Your task to perform on an android device: open app "Facebook Lite" (install if not already installed) and enter user name: "suppers@inbox.com" and password: "downplayed" Image 0: 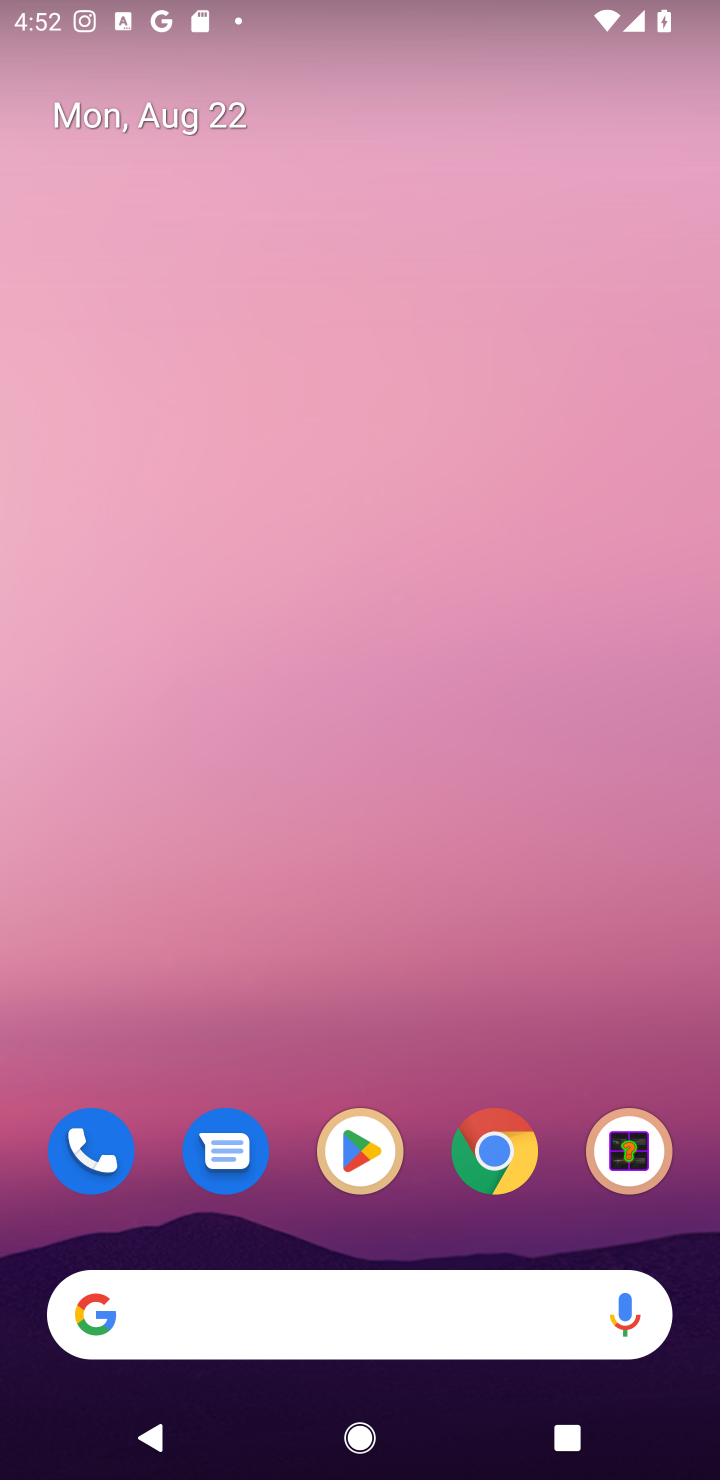
Step 0: click (357, 1153)
Your task to perform on an android device: open app "Facebook Lite" (install if not already installed) and enter user name: "suppers@inbox.com" and password: "downplayed" Image 1: 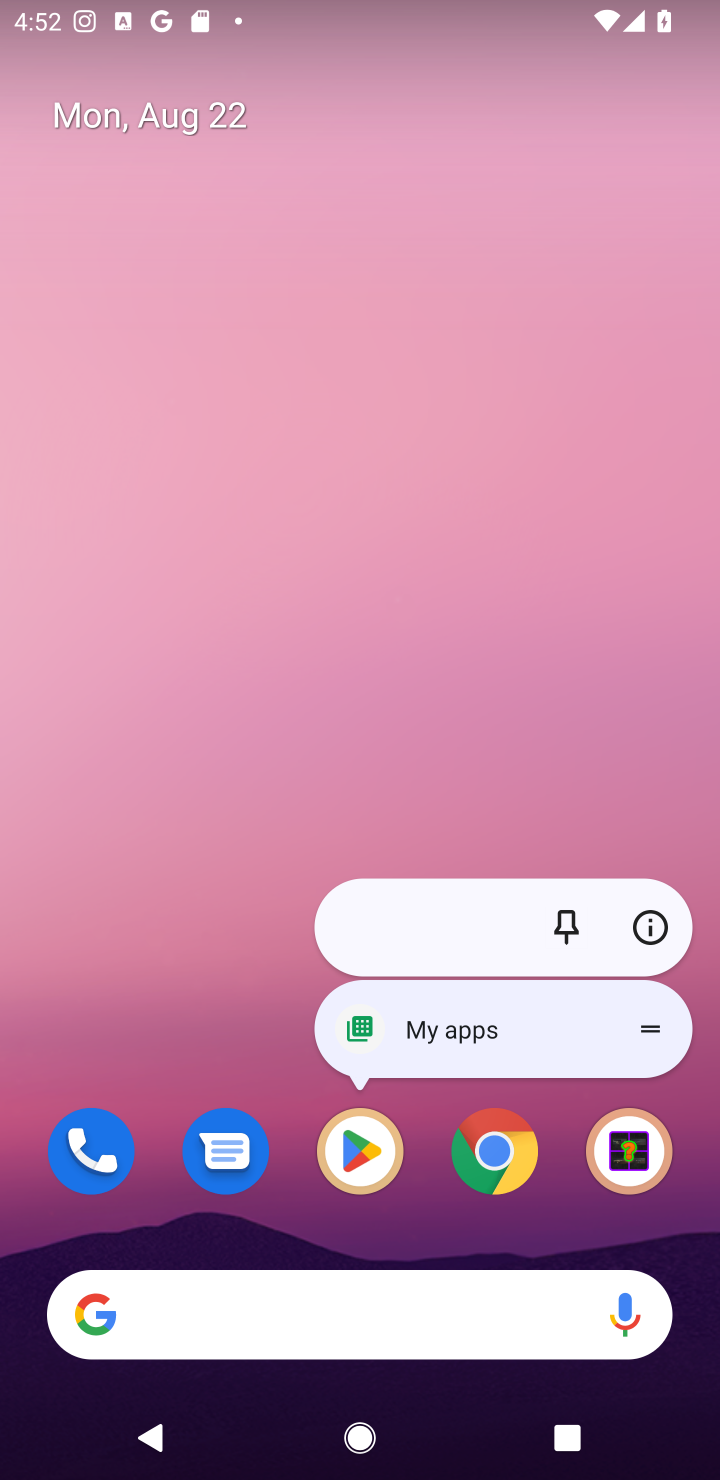
Step 1: click (365, 1142)
Your task to perform on an android device: open app "Facebook Lite" (install if not already installed) and enter user name: "suppers@inbox.com" and password: "downplayed" Image 2: 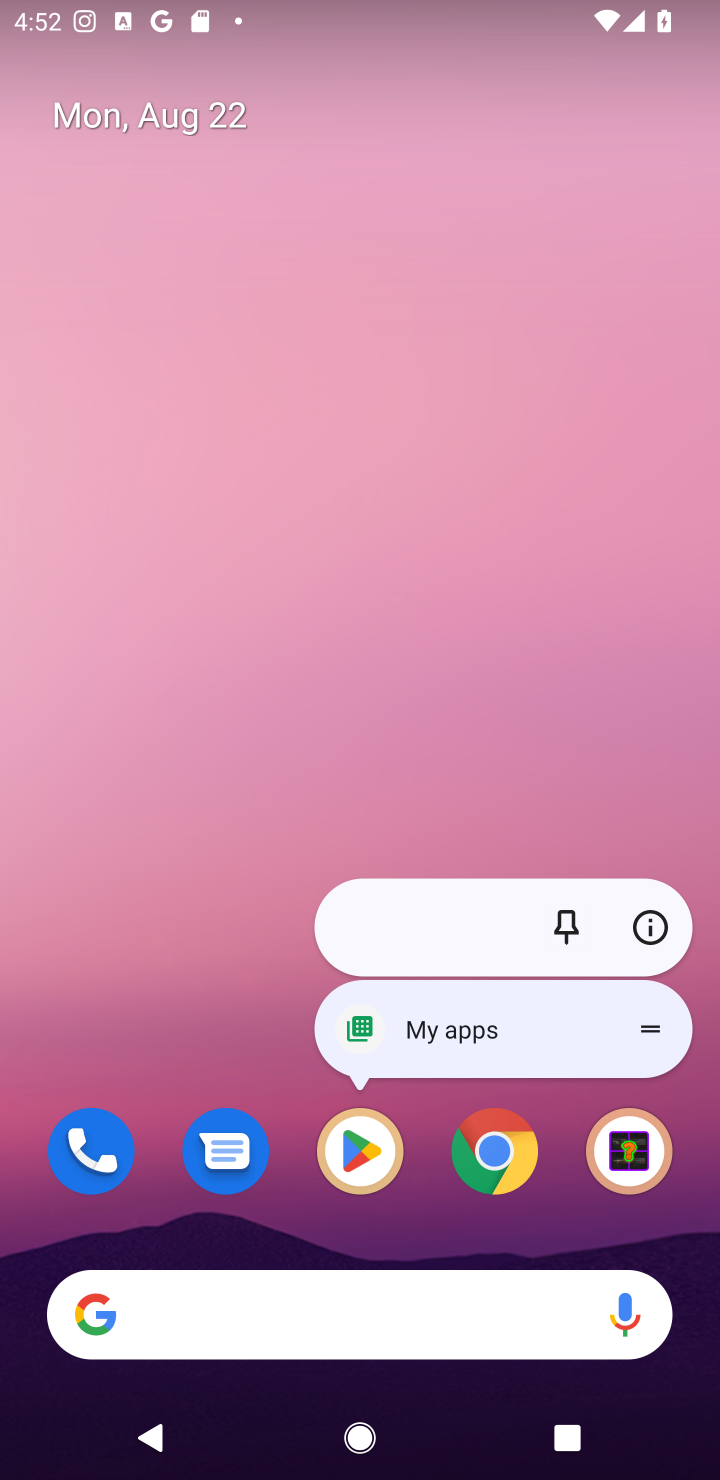
Step 2: click (365, 1144)
Your task to perform on an android device: open app "Facebook Lite" (install if not already installed) and enter user name: "suppers@inbox.com" and password: "downplayed" Image 3: 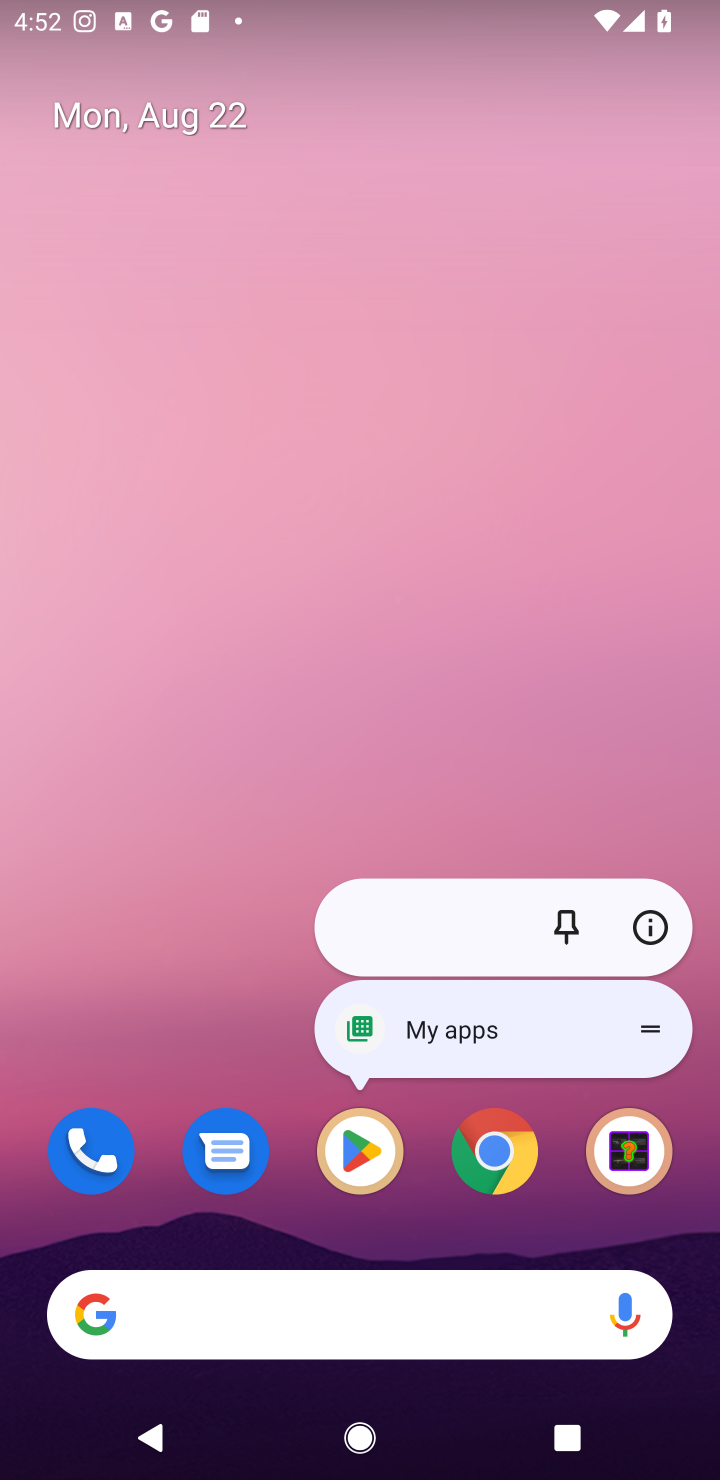
Step 3: click (345, 1163)
Your task to perform on an android device: open app "Facebook Lite" (install if not already installed) and enter user name: "suppers@inbox.com" and password: "downplayed" Image 4: 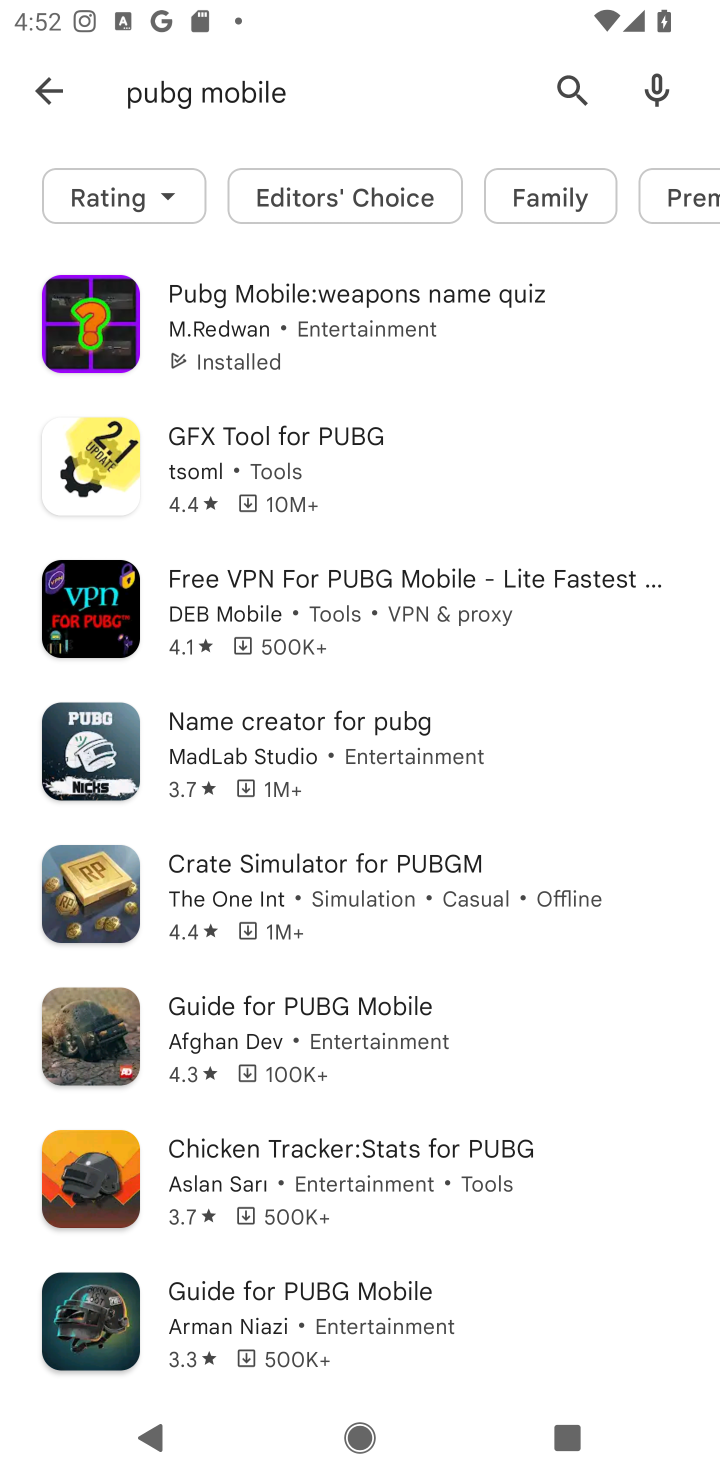
Step 4: click (564, 85)
Your task to perform on an android device: open app "Facebook Lite" (install if not already installed) and enter user name: "suppers@inbox.com" and password: "downplayed" Image 5: 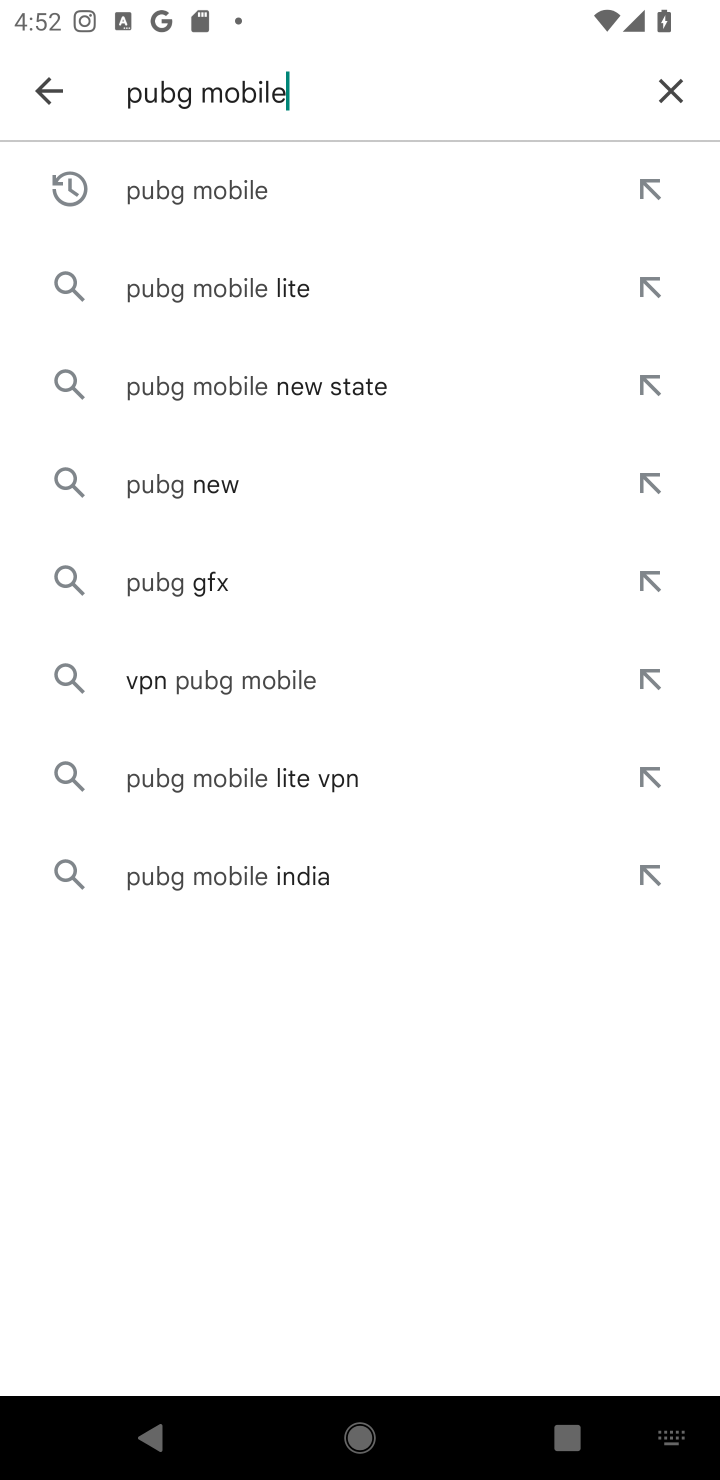
Step 5: click (662, 97)
Your task to perform on an android device: open app "Facebook Lite" (install if not already installed) and enter user name: "suppers@inbox.com" and password: "downplayed" Image 6: 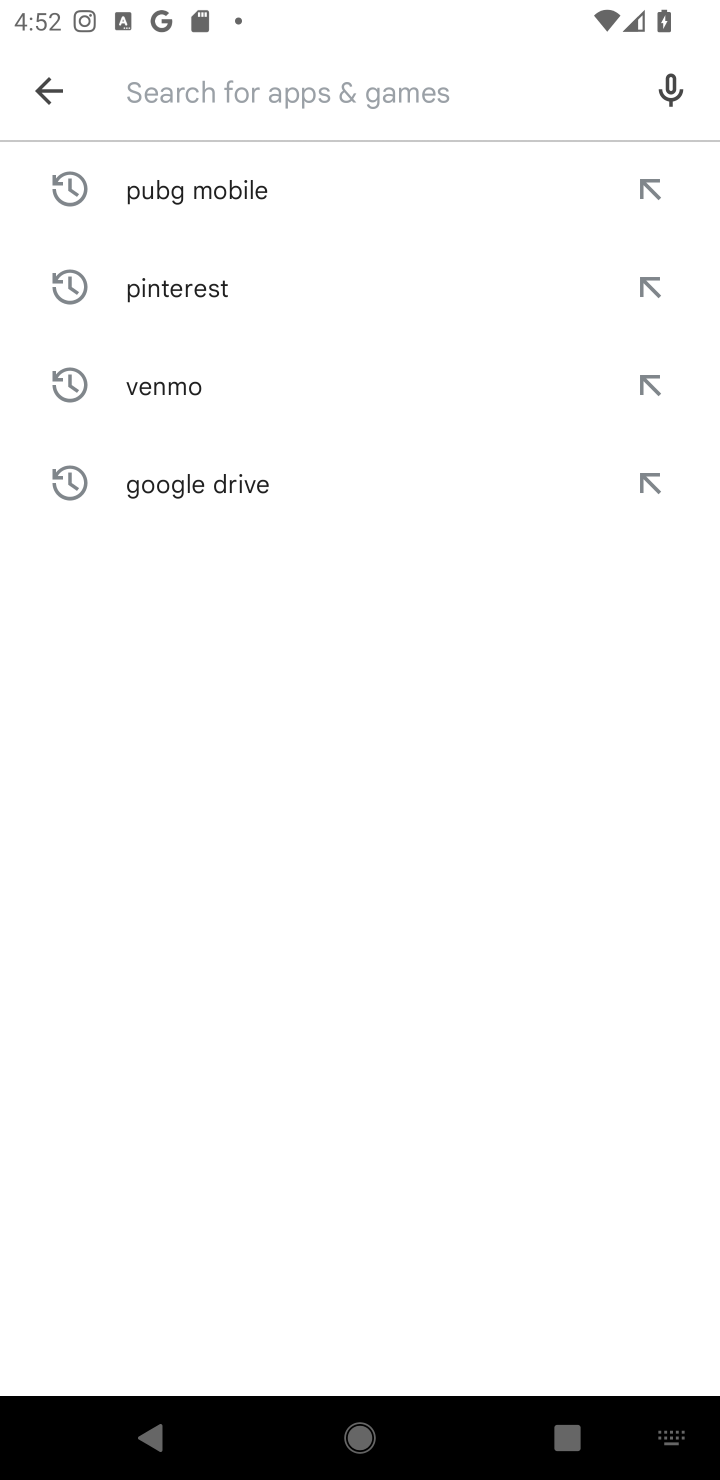
Step 6: type "Facebook Lite"
Your task to perform on an android device: open app "Facebook Lite" (install if not already installed) and enter user name: "suppers@inbox.com" and password: "downplayed" Image 7: 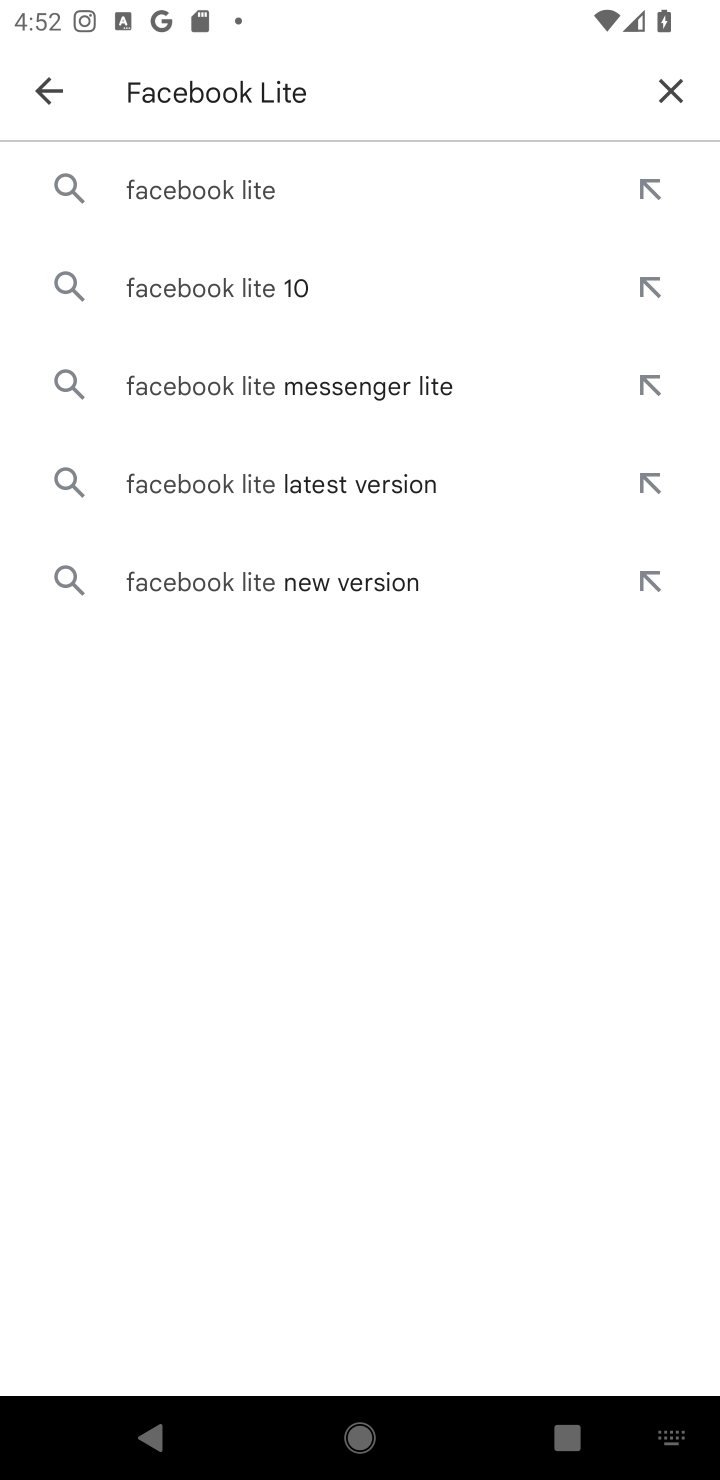
Step 7: click (246, 204)
Your task to perform on an android device: open app "Facebook Lite" (install if not already installed) and enter user name: "suppers@inbox.com" and password: "downplayed" Image 8: 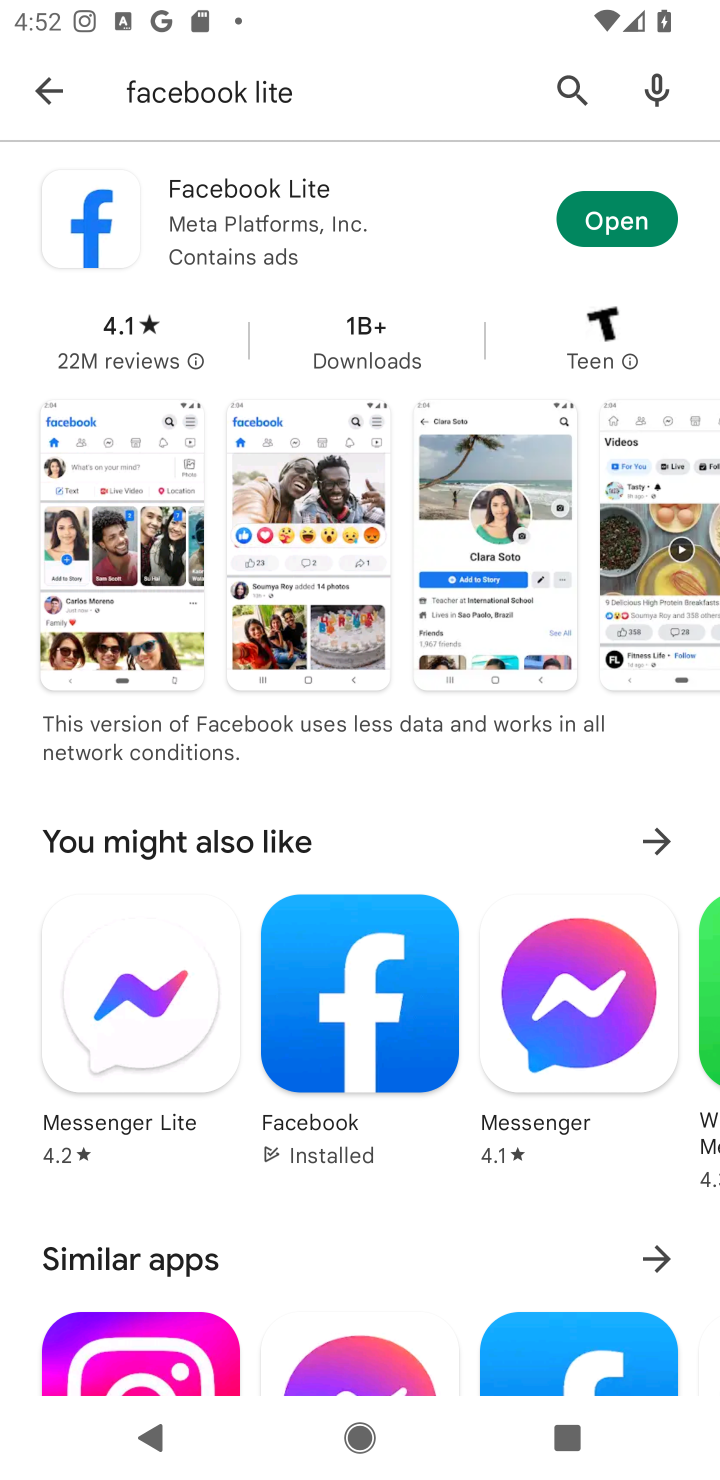
Step 8: click (603, 219)
Your task to perform on an android device: open app "Facebook Lite" (install if not already installed) and enter user name: "suppers@inbox.com" and password: "downplayed" Image 9: 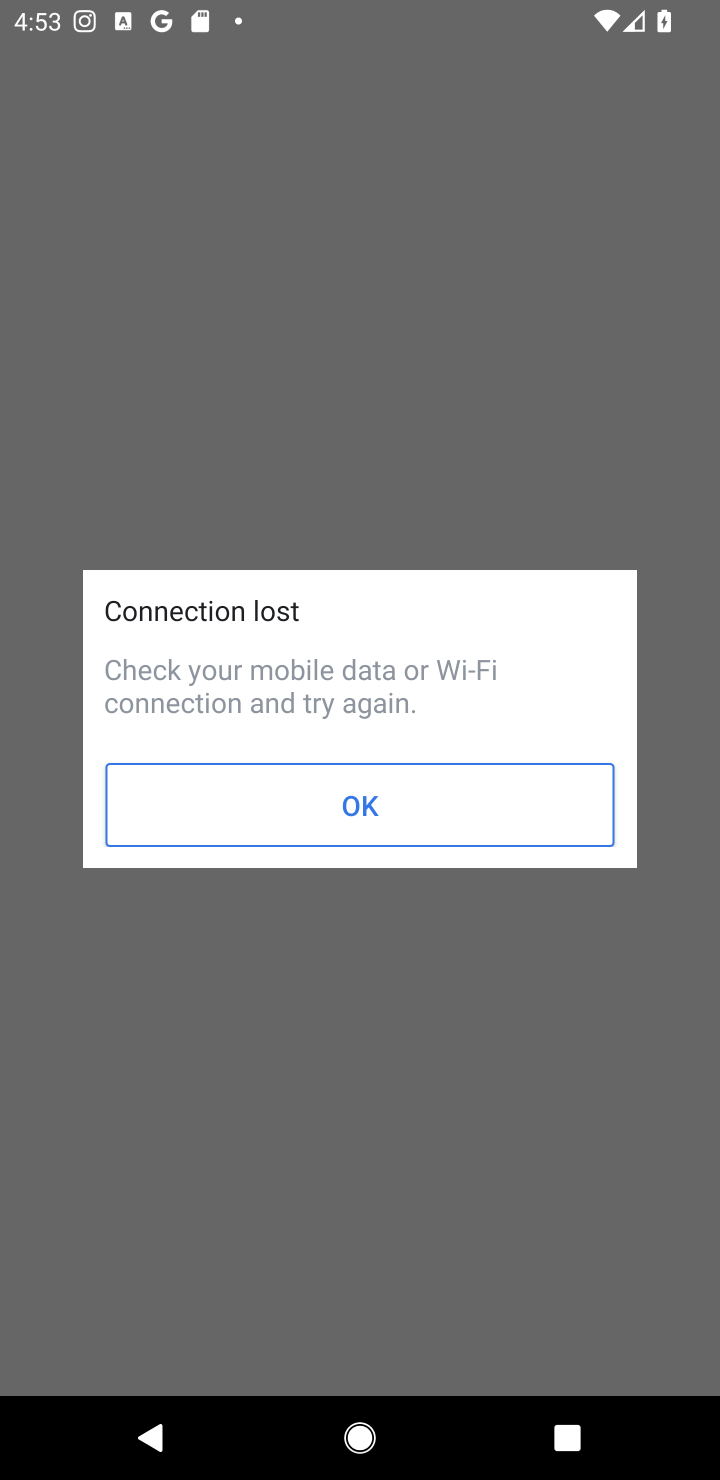
Step 9: task complete